Your task to perform on an android device: Open location settings Image 0: 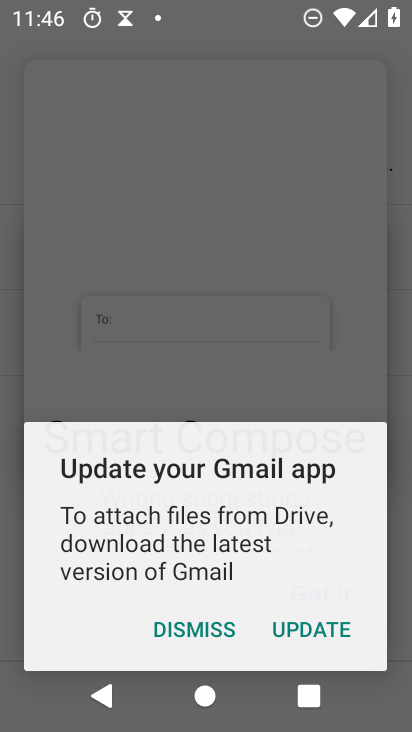
Step 0: click (312, 586)
Your task to perform on an android device: Open location settings Image 1: 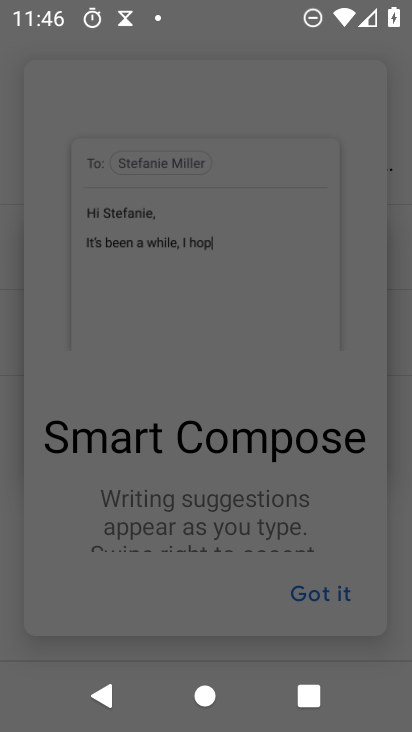
Step 1: press home button
Your task to perform on an android device: Open location settings Image 2: 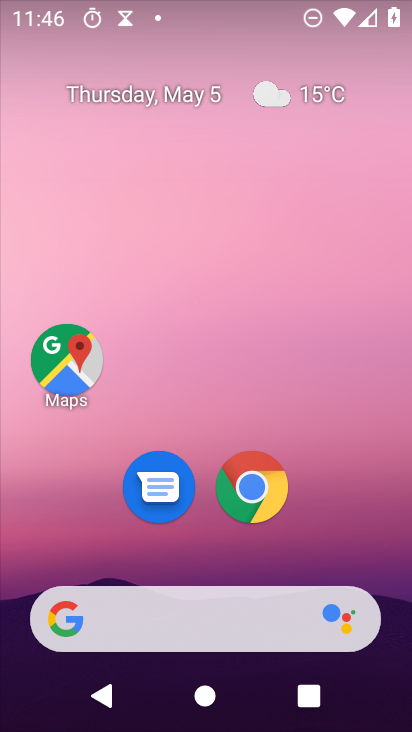
Step 2: drag from (305, 541) to (185, 153)
Your task to perform on an android device: Open location settings Image 3: 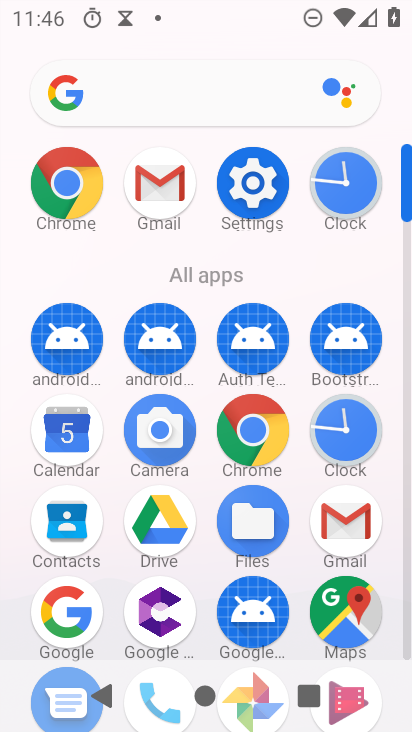
Step 3: click (255, 177)
Your task to perform on an android device: Open location settings Image 4: 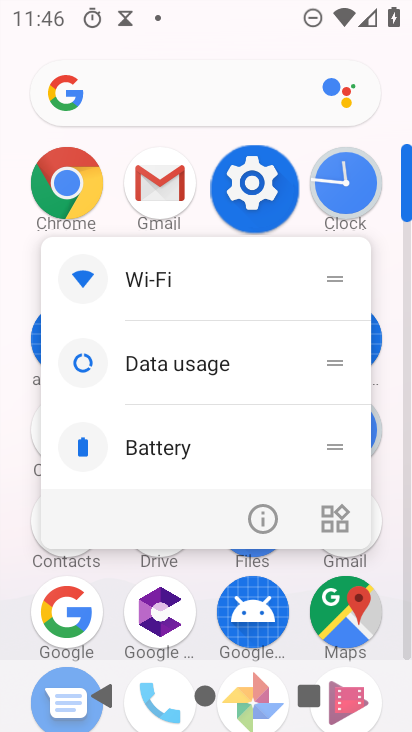
Step 4: click (259, 183)
Your task to perform on an android device: Open location settings Image 5: 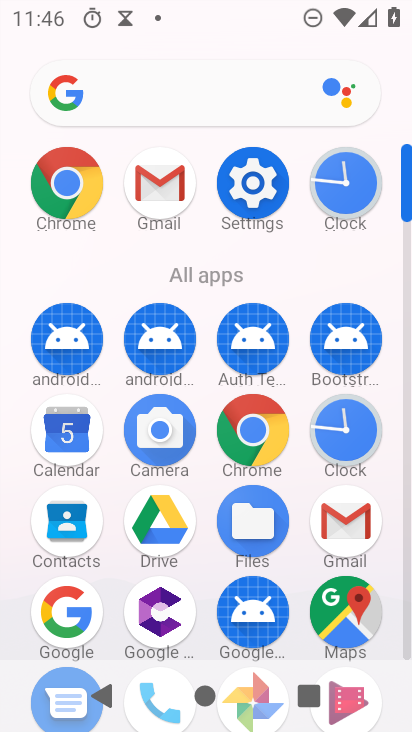
Step 5: click (259, 183)
Your task to perform on an android device: Open location settings Image 6: 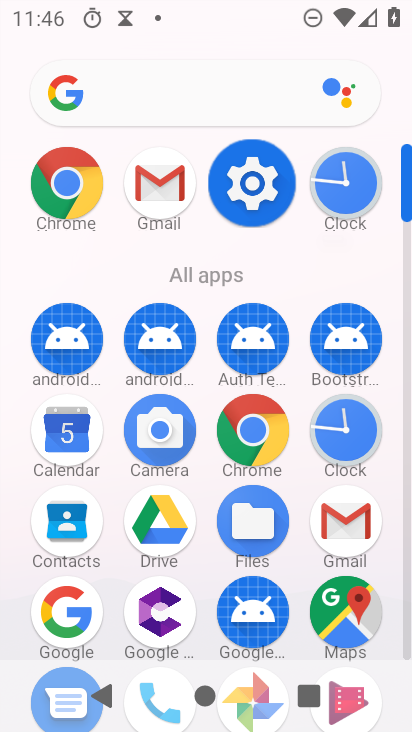
Step 6: click (260, 183)
Your task to perform on an android device: Open location settings Image 7: 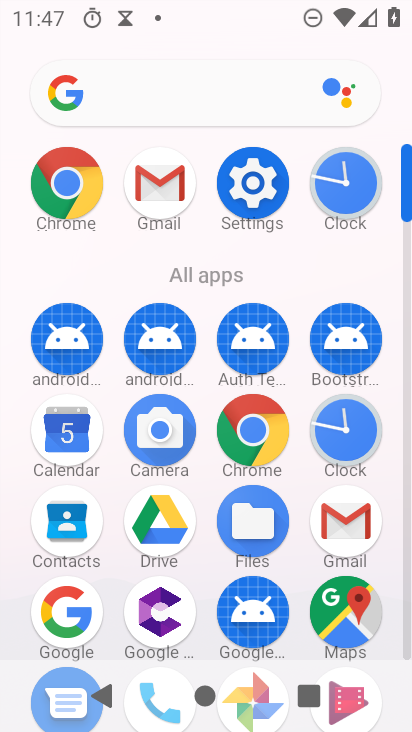
Step 7: click (259, 187)
Your task to perform on an android device: Open location settings Image 8: 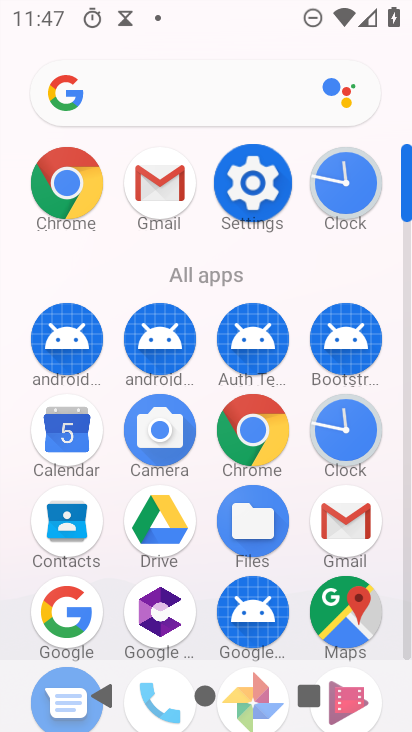
Step 8: click (261, 186)
Your task to perform on an android device: Open location settings Image 9: 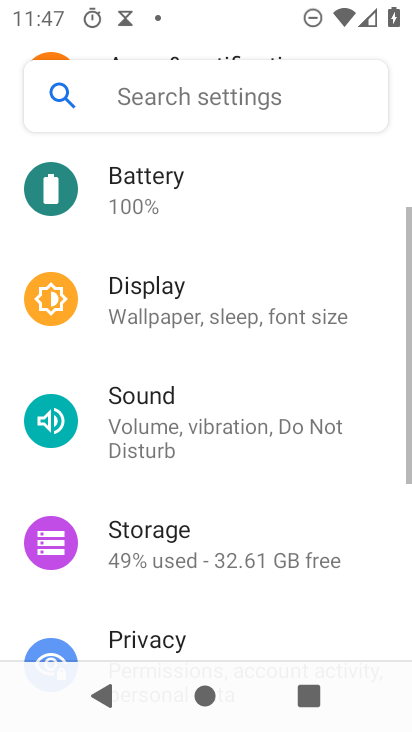
Step 9: click (261, 186)
Your task to perform on an android device: Open location settings Image 10: 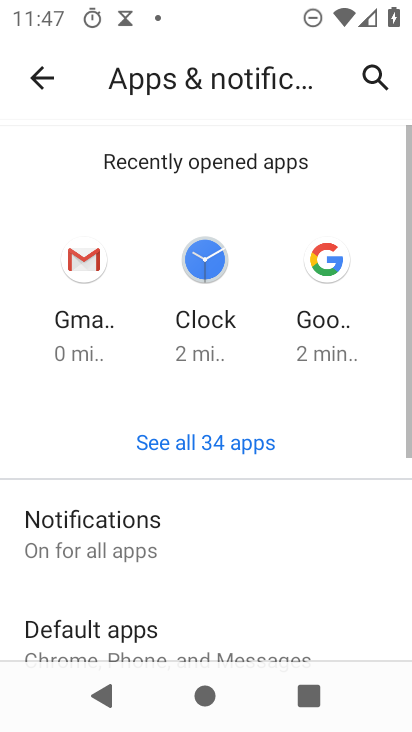
Step 10: click (43, 83)
Your task to perform on an android device: Open location settings Image 11: 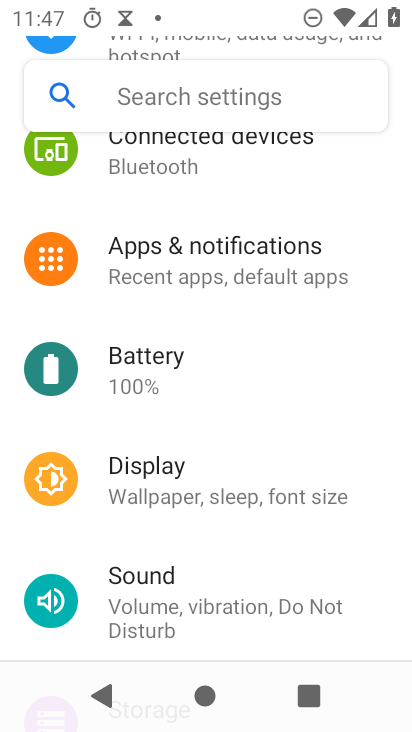
Step 11: drag from (192, 537) to (203, 80)
Your task to perform on an android device: Open location settings Image 12: 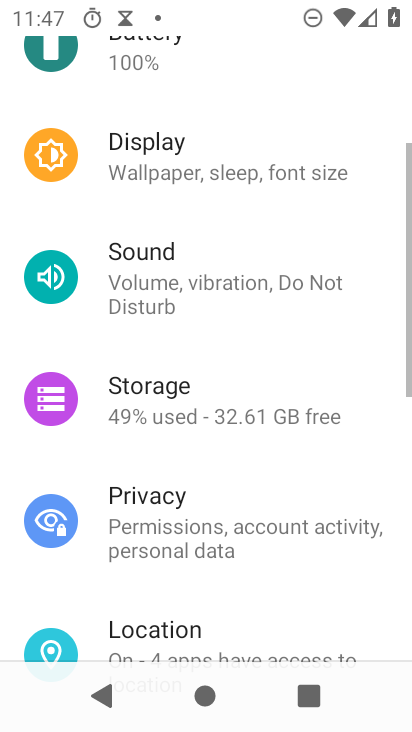
Step 12: drag from (233, 455) to (271, 82)
Your task to perform on an android device: Open location settings Image 13: 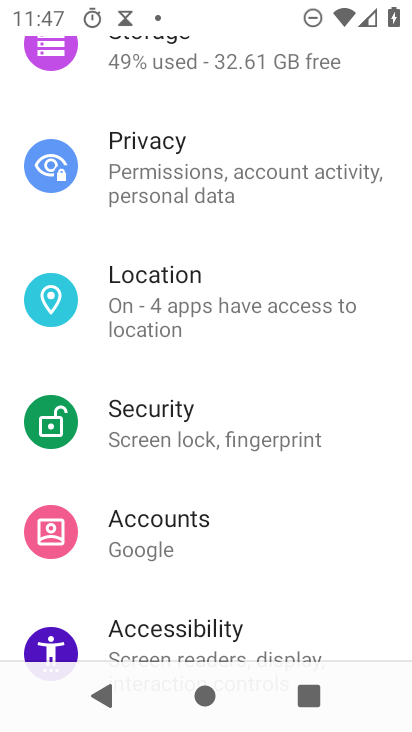
Step 13: click (192, 292)
Your task to perform on an android device: Open location settings Image 14: 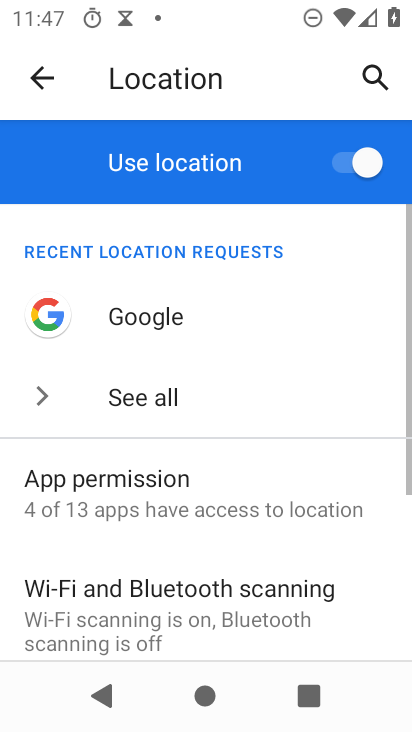
Step 14: task complete